Your task to perform on an android device: turn notification dots on Image 0: 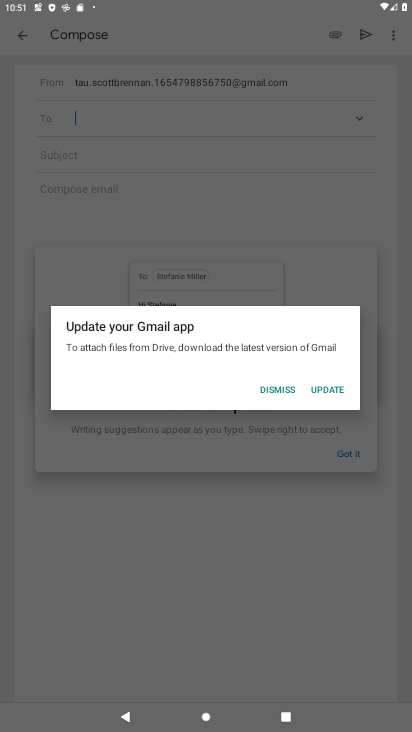
Step 0: click (316, 384)
Your task to perform on an android device: turn notification dots on Image 1: 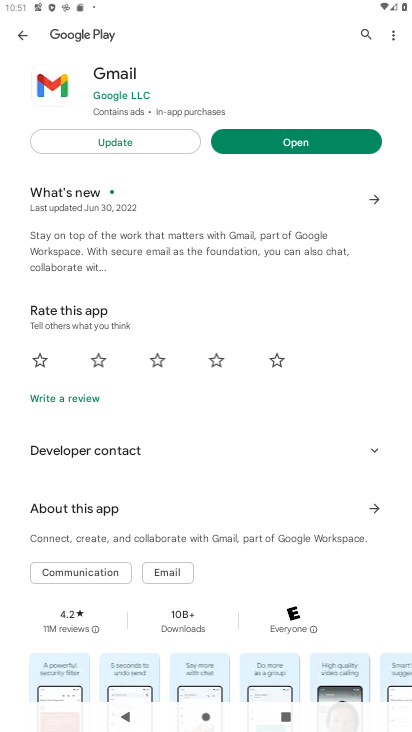
Step 1: click (123, 142)
Your task to perform on an android device: turn notification dots on Image 2: 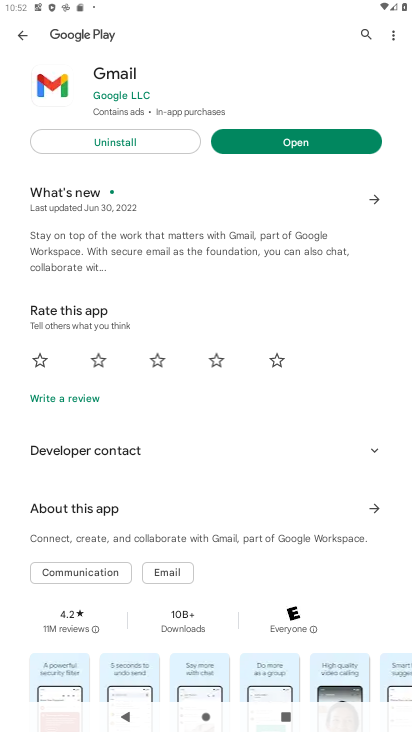
Step 2: click (250, 141)
Your task to perform on an android device: turn notification dots on Image 3: 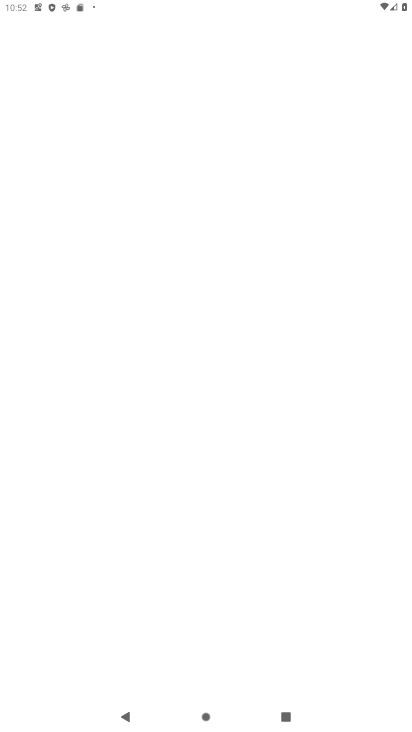
Step 3: task complete